Your task to perform on an android device: Search for the best fantasy books on Goodreads. Image 0: 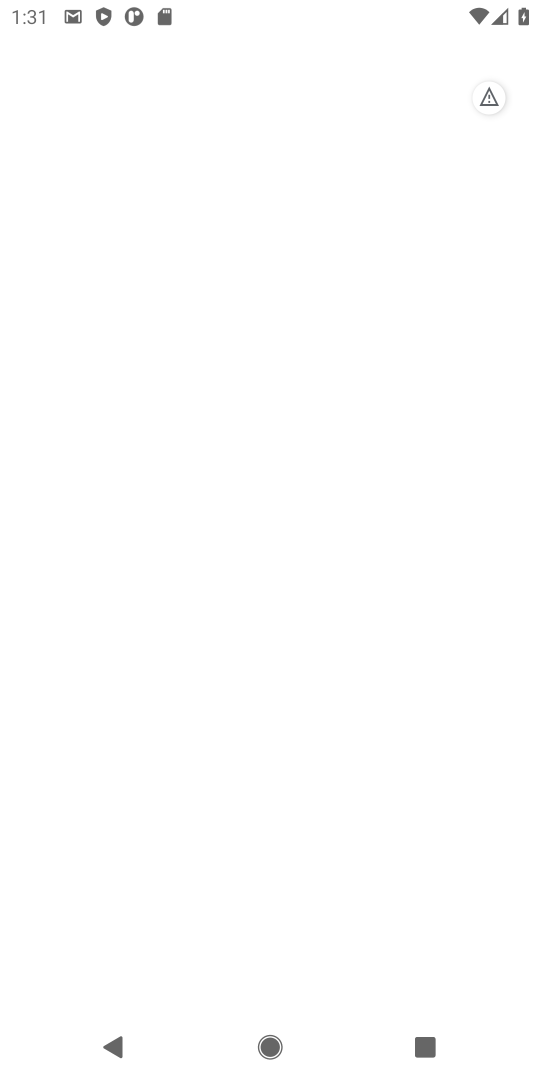
Step 0: press home button
Your task to perform on an android device: Search for the best fantasy books on Goodreads. Image 1: 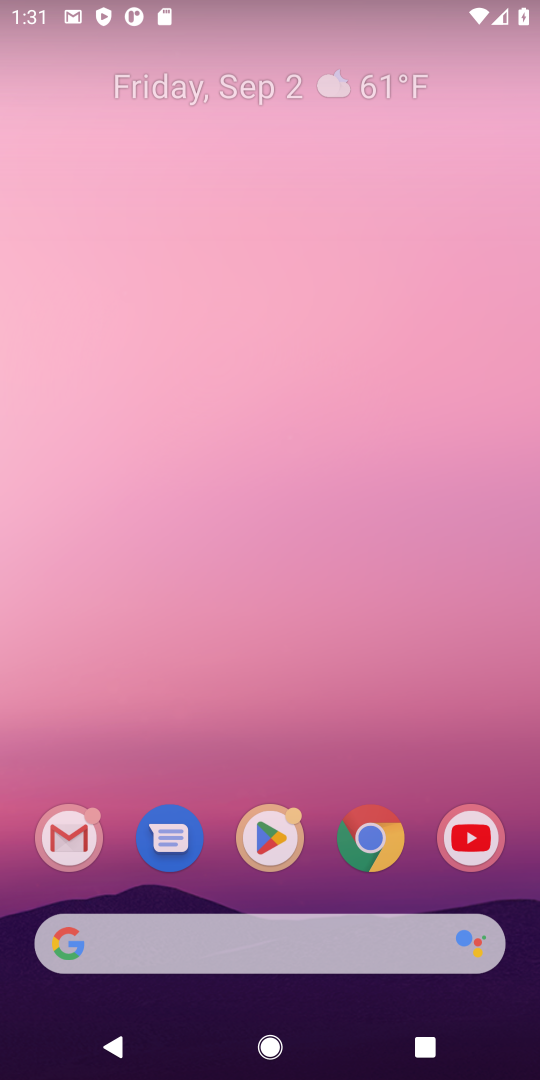
Step 1: press home button
Your task to perform on an android device: Search for the best fantasy books on Goodreads. Image 2: 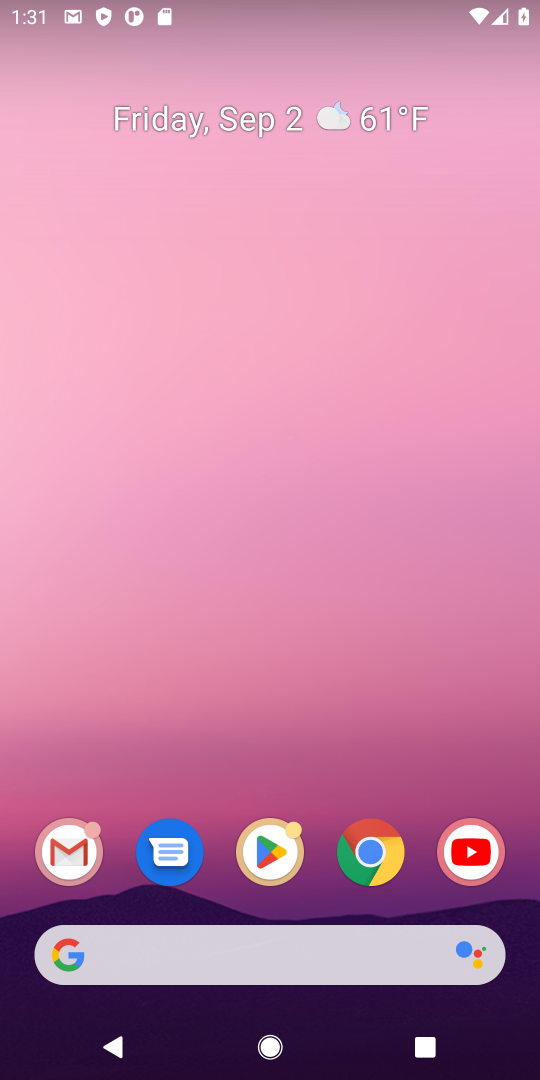
Step 2: click (293, 6)
Your task to perform on an android device: Search for the best fantasy books on Goodreads. Image 3: 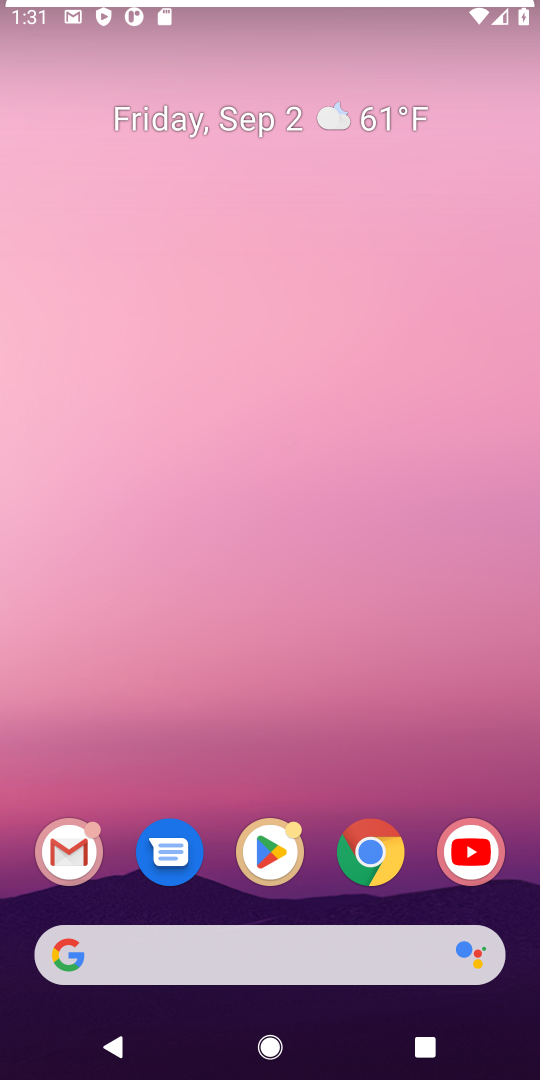
Step 3: drag from (270, 177) to (258, 0)
Your task to perform on an android device: Search for the best fantasy books on Goodreads. Image 4: 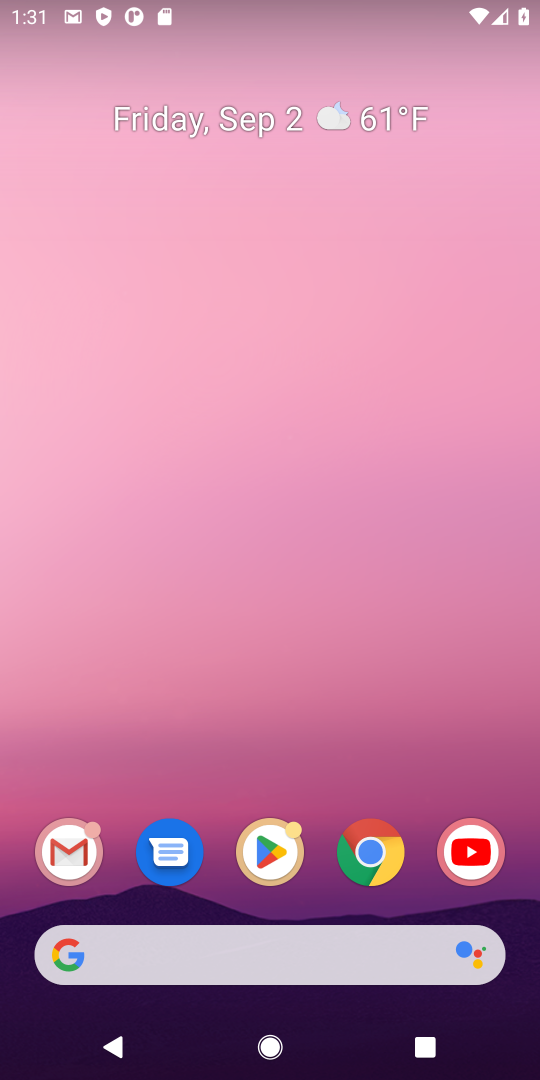
Step 4: drag from (334, 505) to (317, 0)
Your task to perform on an android device: Search for the best fantasy books on Goodreads. Image 5: 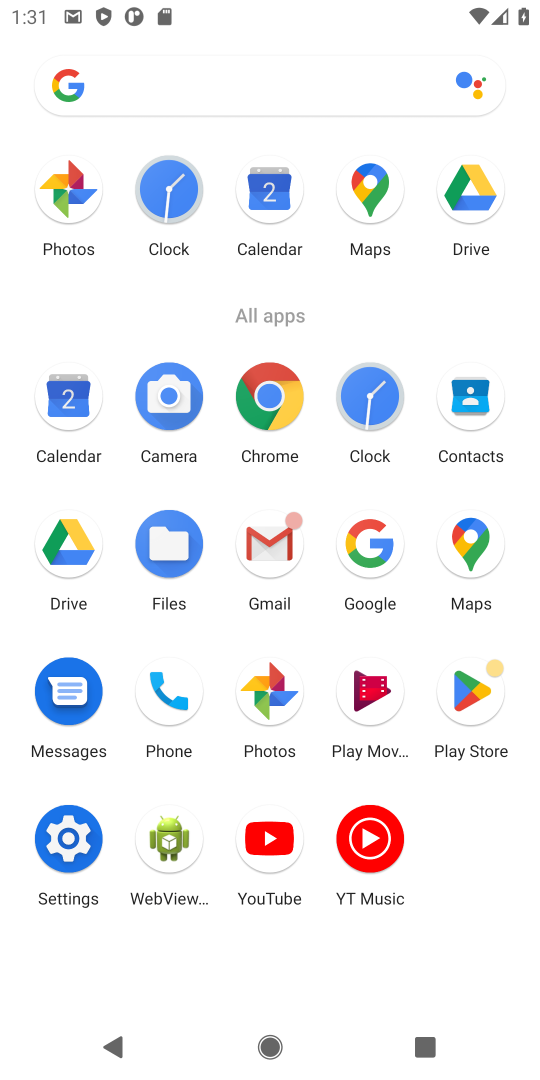
Step 5: click (269, 393)
Your task to perform on an android device: Search for the best fantasy books on Goodreads. Image 6: 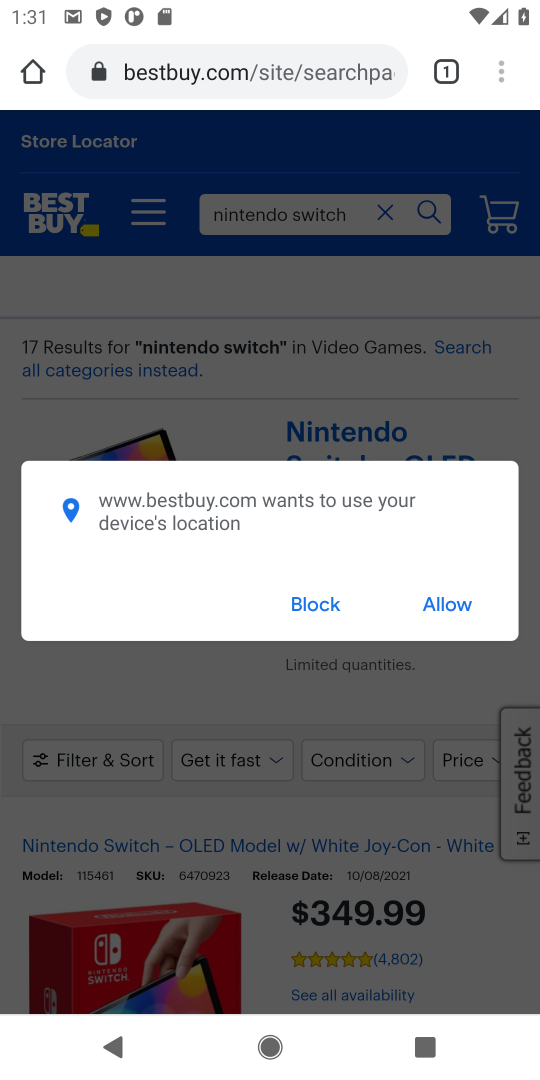
Step 6: click (307, 57)
Your task to perform on an android device: Search for the best fantasy books on Goodreads. Image 7: 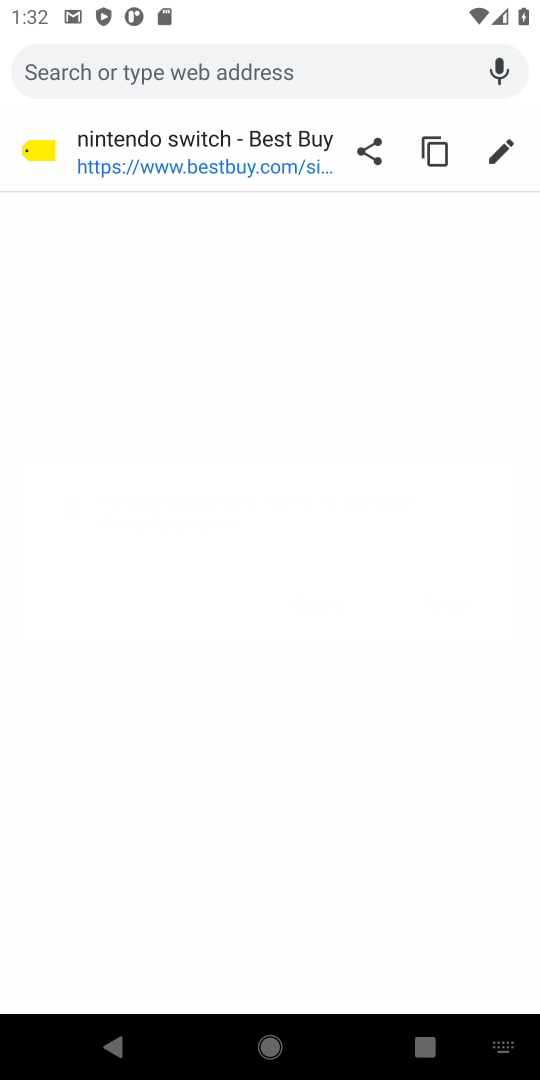
Step 7: type "best fantasy books on Goodreads"
Your task to perform on an android device: Search for the best fantasy books on Goodreads. Image 8: 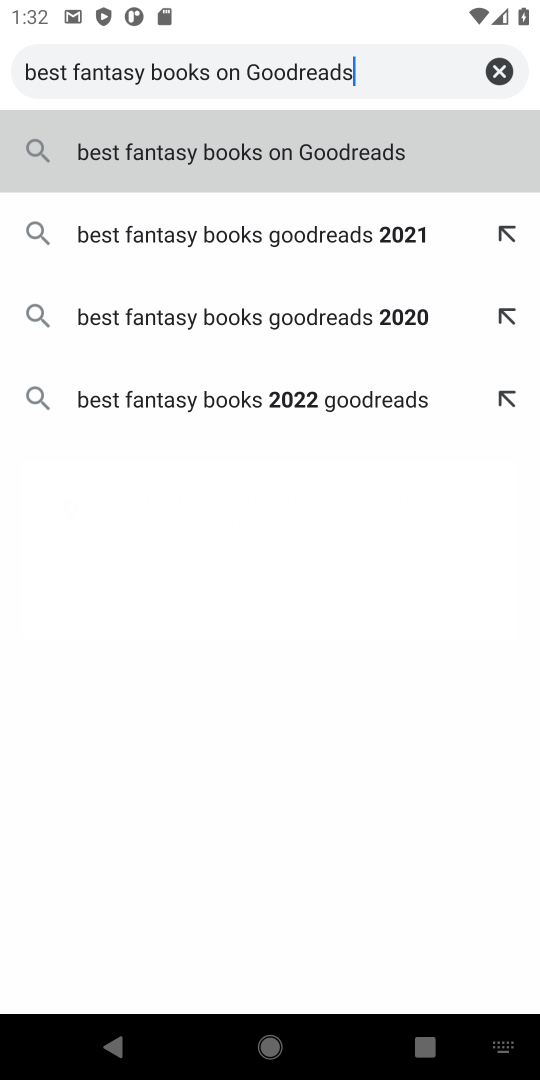
Step 8: press enter
Your task to perform on an android device: Search for the best fantasy books on Goodreads. Image 9: 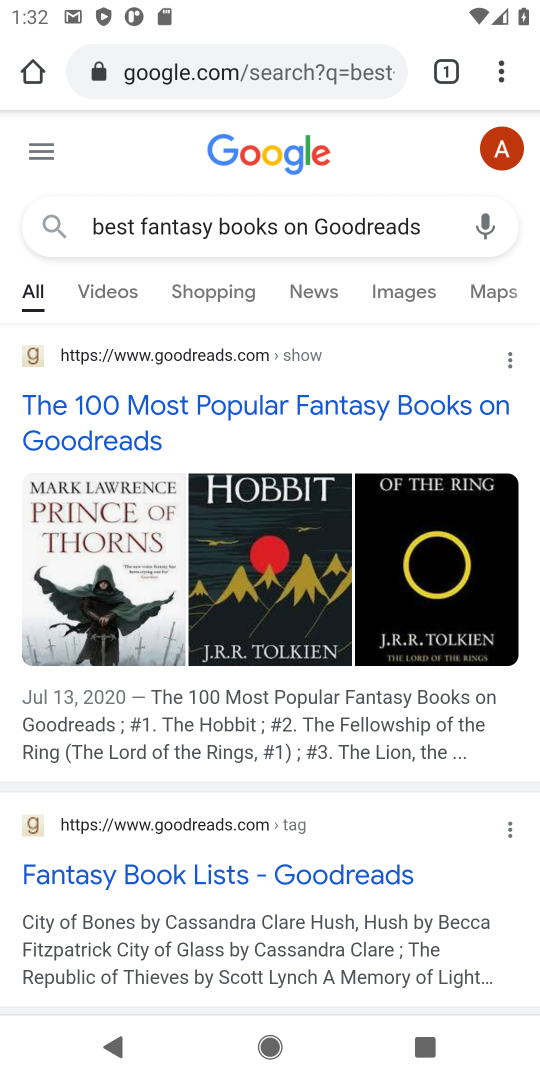
Step 9: click (284, 421)
Your task to perform on an android device: Search for the best fantasy books on Goodreads. Image 10: 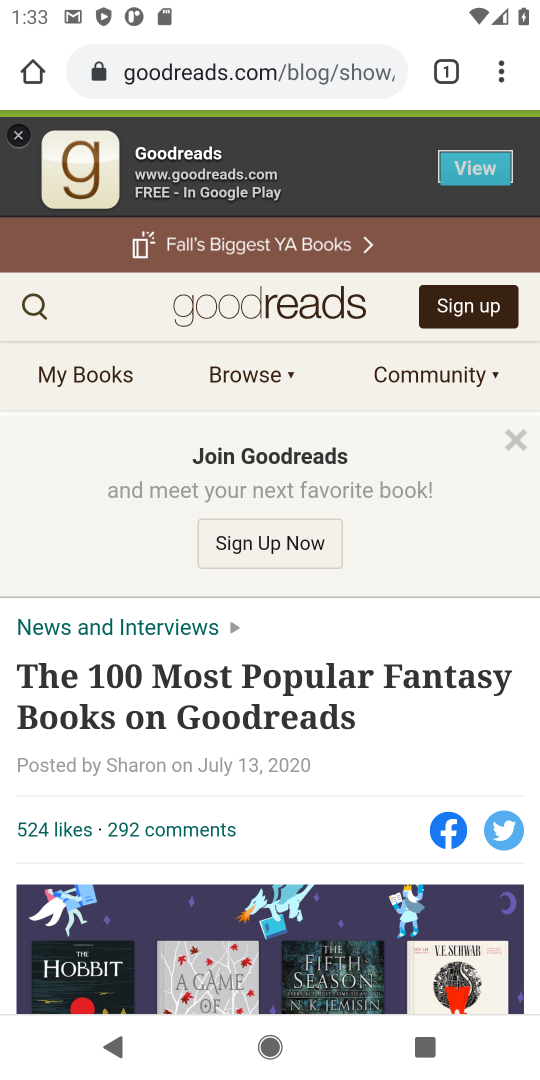
Step 10: task complete